Your task to perform on an android device: turn on location history Image 0: 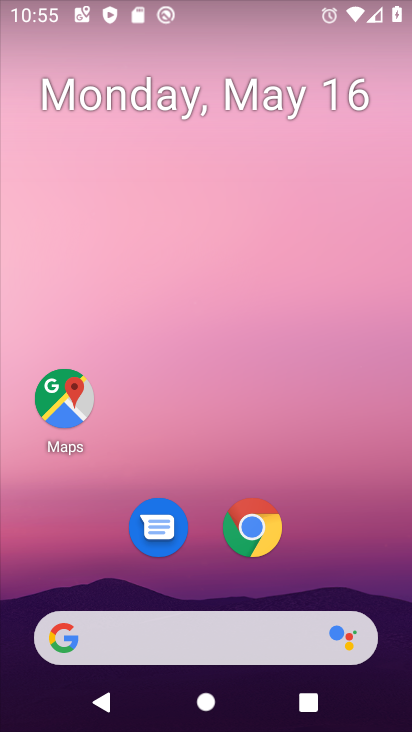
Step 0: click (51, 397)
Your task to perform on an android device: turn on location history Image 1: 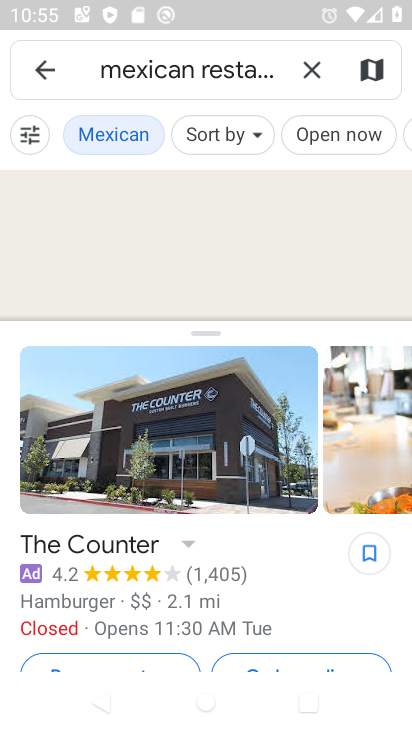
Step 1: click (318, 72)
Your task to perform on an android device: turn on location history Image 2: 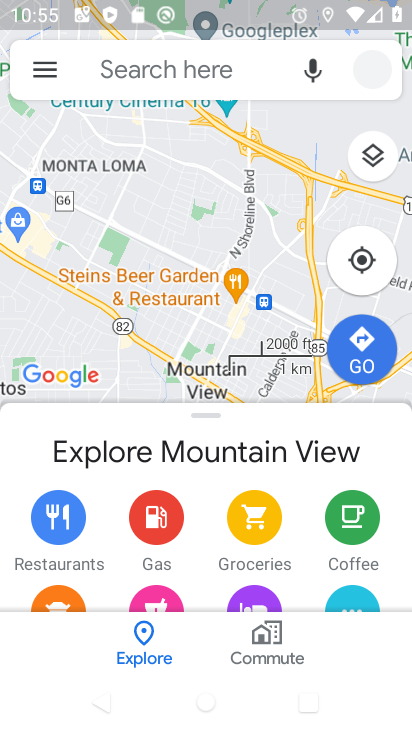
Step 2: click (36, 73)
Your task to perform on an android device: turn on location history Image 3: 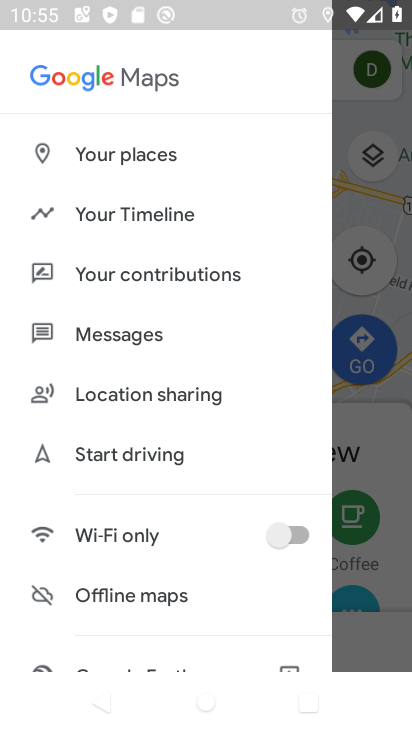
Step 3: click (106, 215)
Your task to perform on an android device: turn on location history Image 4: 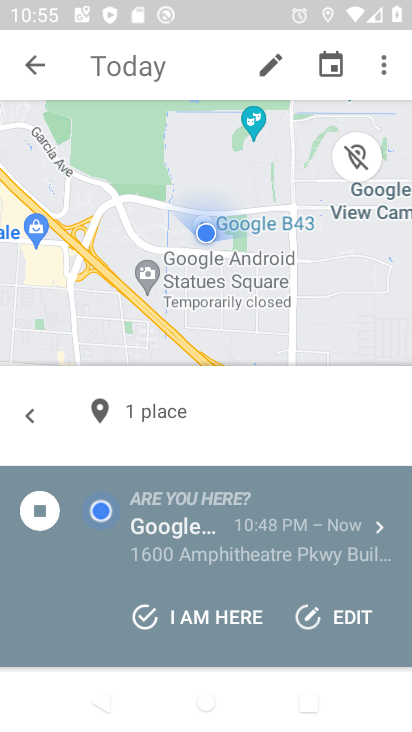
Step 4: click (387, 69)
Your task to perform on an android device: turn on location history Image 5: 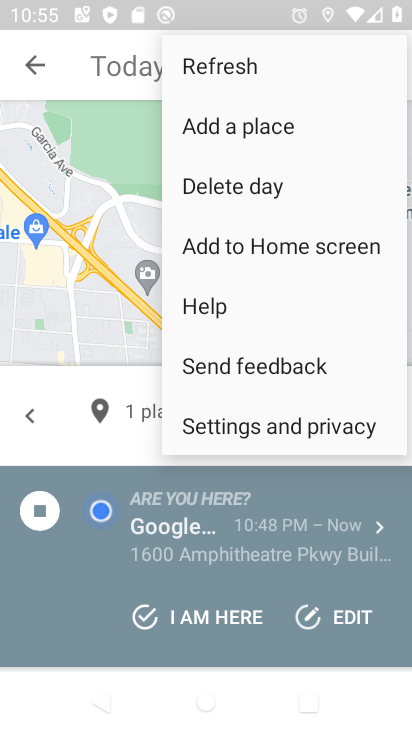
Step 5: click (293, 432)
Your task to perform on an android device: turn on location history Image 6: 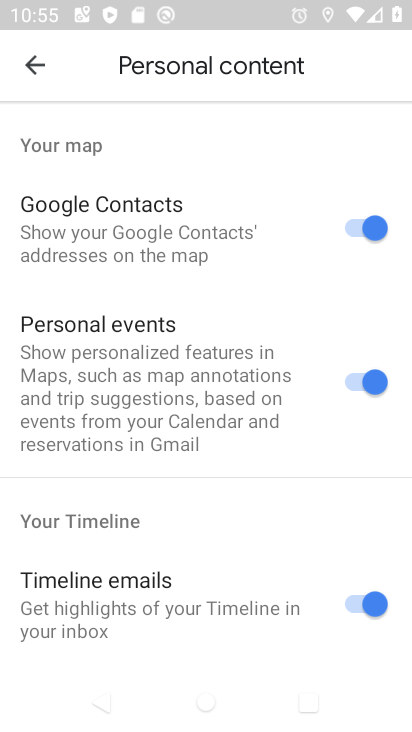
Step 6: drag from (216, 512) to (221, 12)
Your task to perform on an android device: turn on location history Image 7: 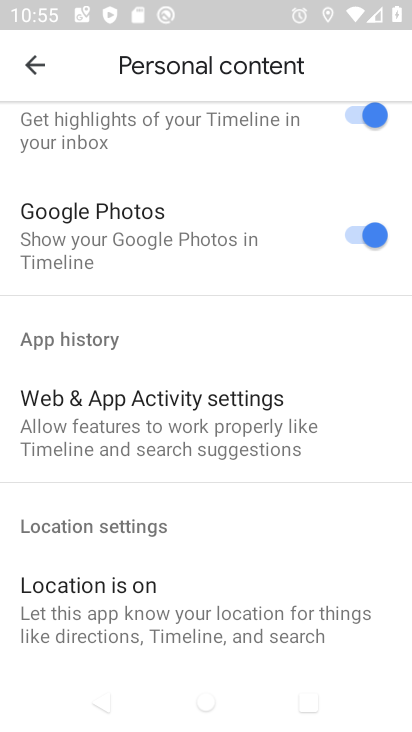
Step 7: drag from (208, 507) to (229, 63)
Your task to perform on an android device: turn on location history Image 8: 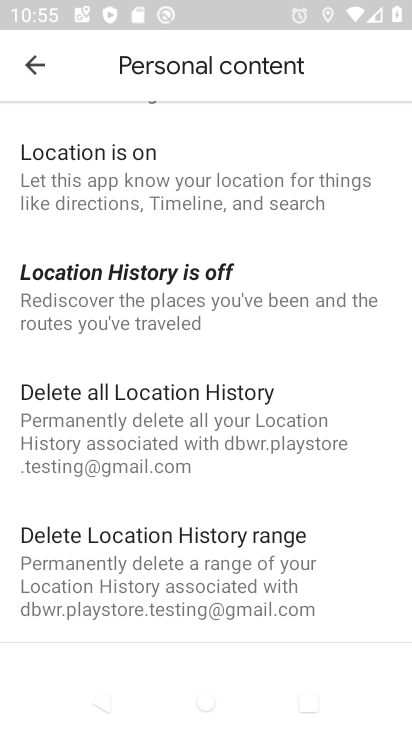
Step 8: click (137, 295)
Your task to perform on an android device: turn on location history Image 9: 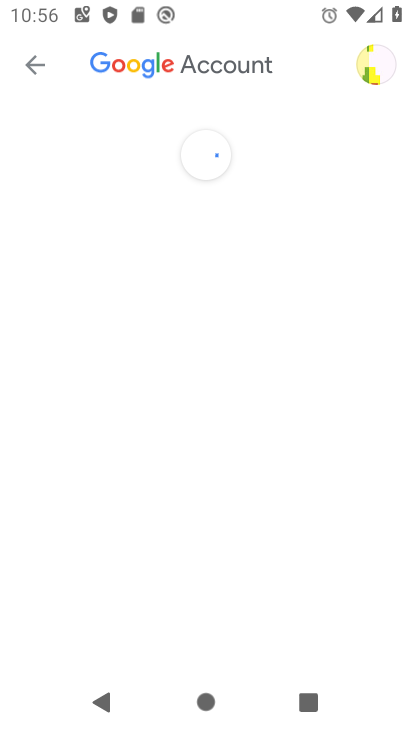
Step 9: task complete